Your task to perform on an android device: Open the map Image 0: 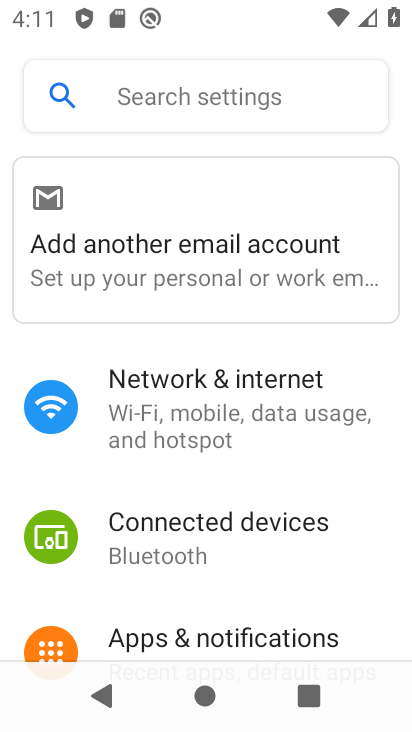
Step 0: press home button
Your task to perform on an android device: Open the map Image 1: 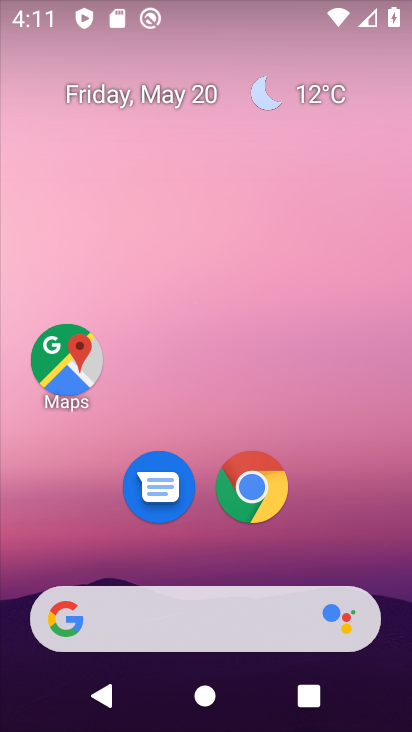
Step 1: click (82, 373)
Your task to perform on an android device: Open the map Image 2: 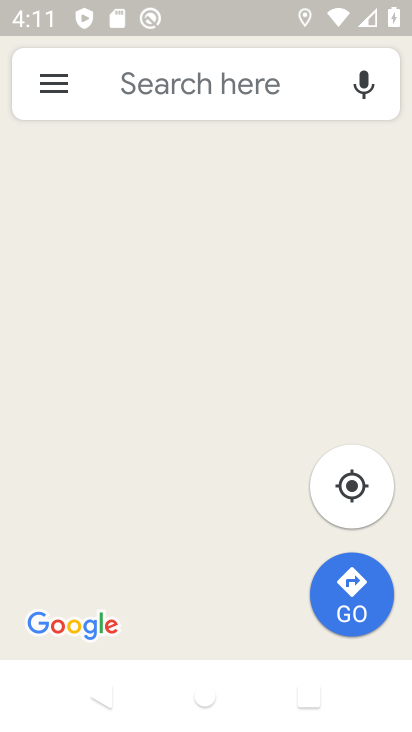
Step 2: task complete